Your task to perform on an android device: search for starred emails in the gmail app Image 0: 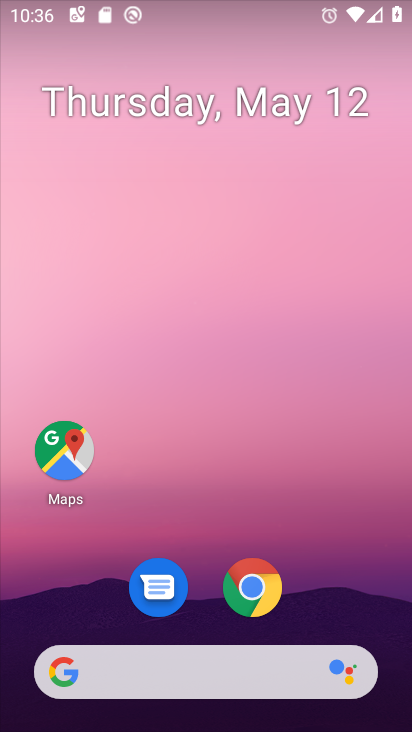
Step 0: drag from (393, 654) to (315, 93)
Your task to perform on an android device: search for starred emails in the gmail app Image 1: 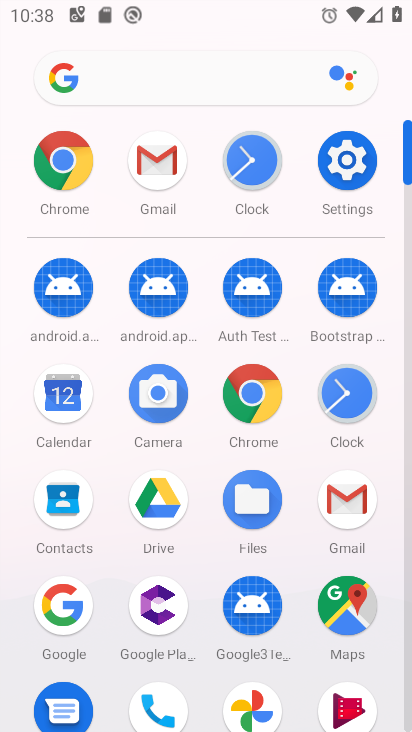
Step 1: click (346, 496)
Your task to perform on an android device: search for starred emails in the gmail app Image 2: 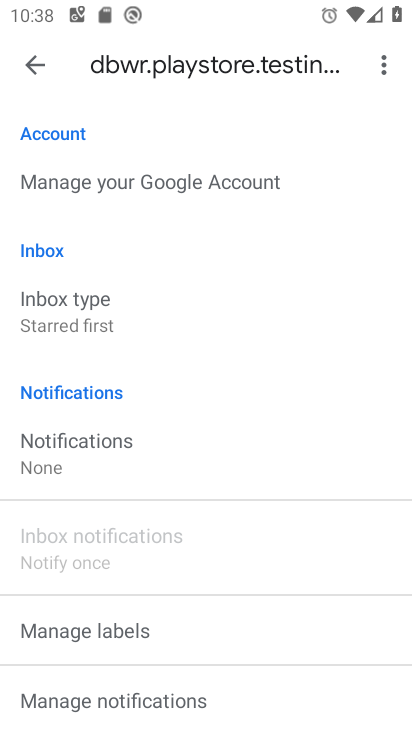
Step 2: press back button
Your task to perform on an android device: search for starred emails in the gmail app Image 3: 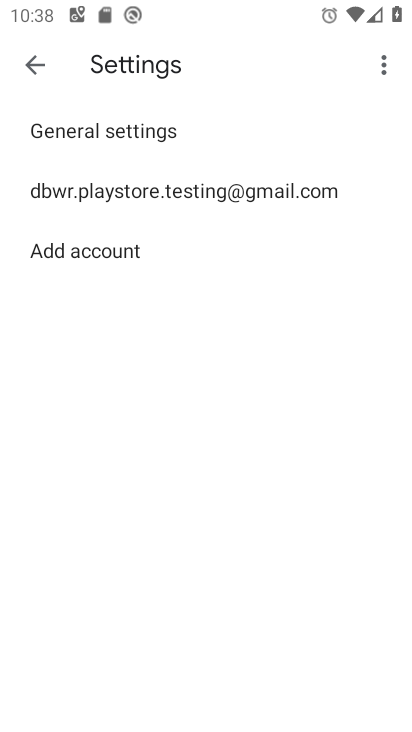
Step 3: press back button
Your task to perform on an android device: search for starred emails in the gmail app Image 4: 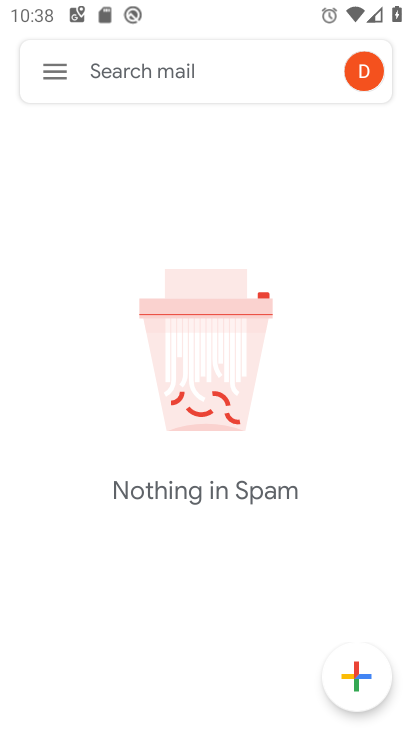
Step 4: click (41, 60)
Your task to perform on an android device: search for starred emails in the gmail app Image 5: 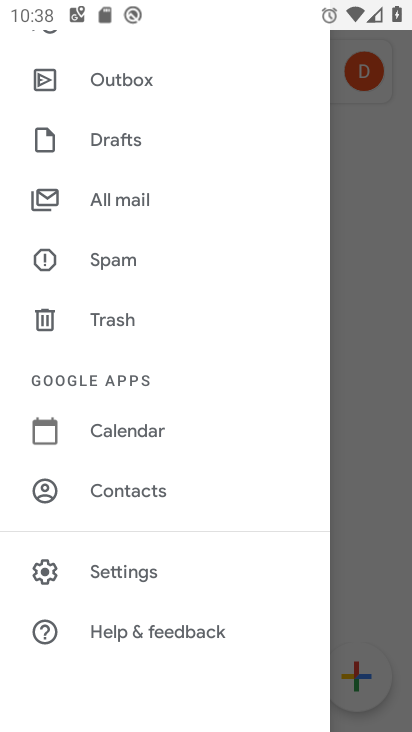
Step 5: drag from (175, 210) to (225, 504)
Your task to perform on an android device: search for starred emails in the gmail app Image 6: 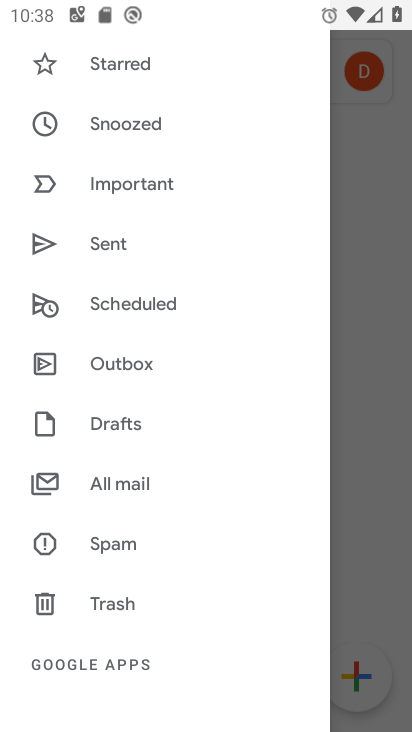
Step 6: drag from (169, 99) to (165, 532)
Your task to perform on an android device: search for starred emails in the gmail app Image 7: 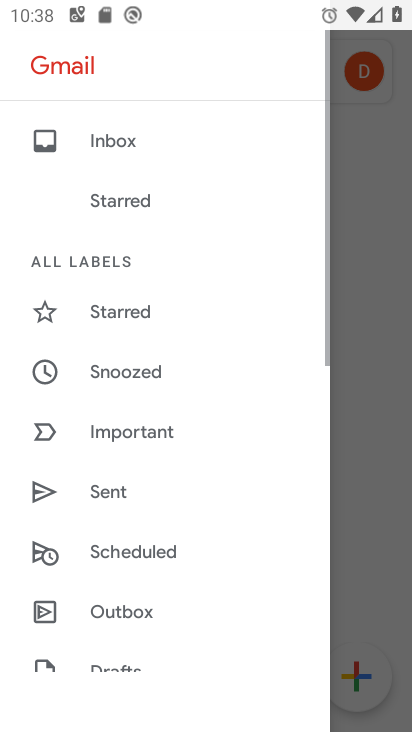
Step 7: click (139, 310)
Your task to perform on an android device: search for starred emails in the gmail app Image 8: 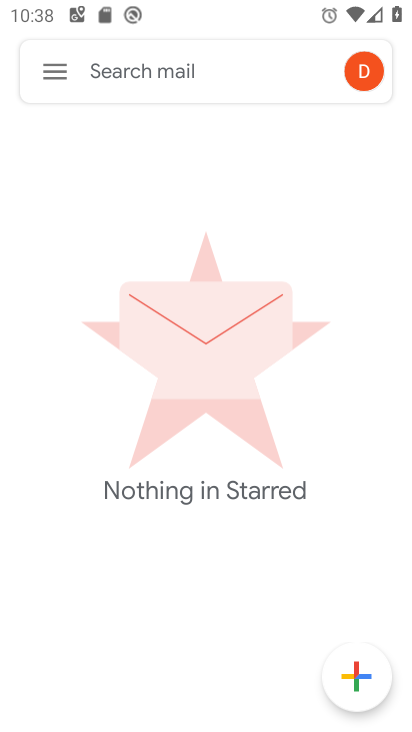
Step 8: task complete